Your task to perform on an android device: find snoozed emails in the gmail app Image 0: 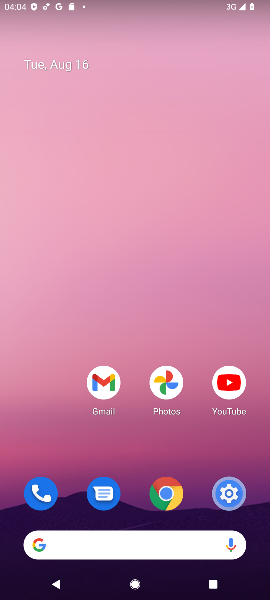
Step 0: press home button
Your task to perform on an android device: find snoozed emails in the gmail app Image 1: 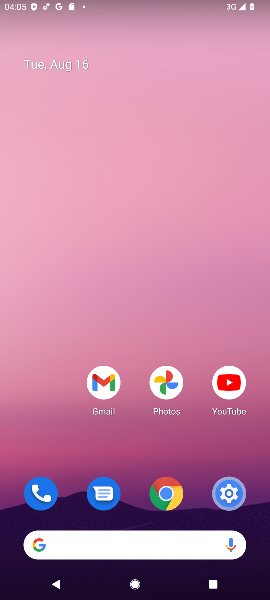
Step 1: drag from (67, 470) to (80, 155)
Your task to perform on an android device: find snoozed emails in the gmail app Image 2: 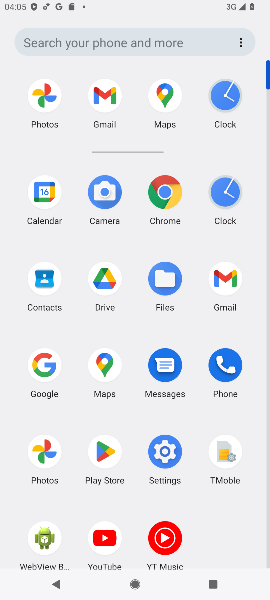
Step 2: click (226, 277)
Your task to perform on an android device: find snoozed emails in the gmail app Image 3: 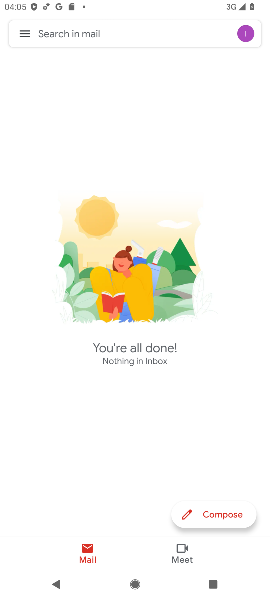
Step 3: click (26, 32)
Your task to perform on an android device: find snoozed emails in the gmail app Image 4: 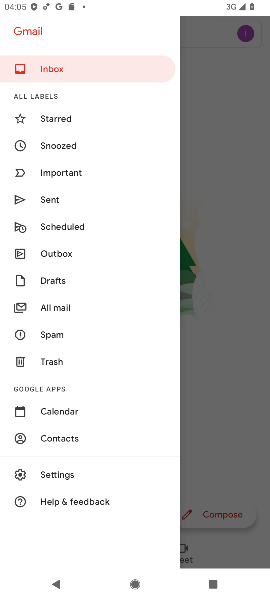
Step 4: click (86, 144)
Your task to perform on an android device: find snoozed emails in the gmail app Image 5: 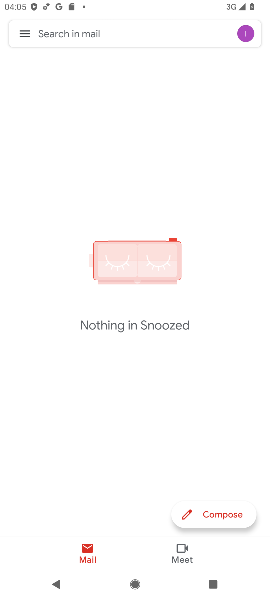
Step 5: task complete